Your task to perform on an android device: visit the assistant section in the google photos Image 0: 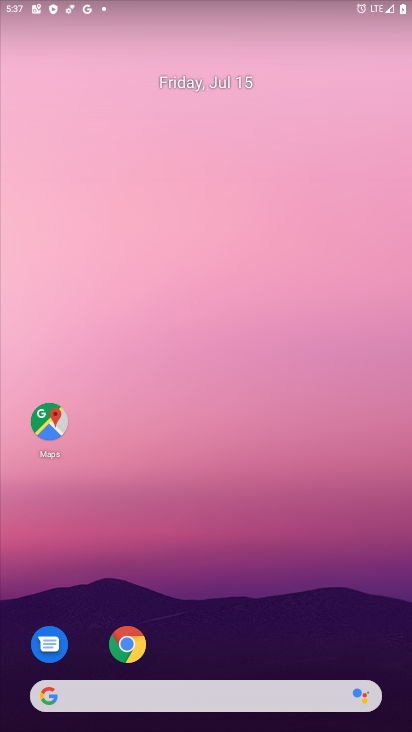
Step 0: drag from (226, 673) to (225, 94)
Your task to perform on an android device: visit the assistant section in the google photos Image 1: 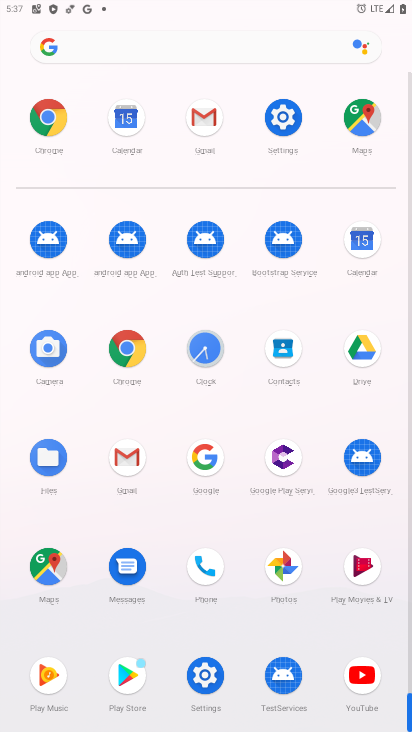
Step 1: click (289, 559)
Your task to perform on an android device: visit the assistant section in the google photos Image 2: 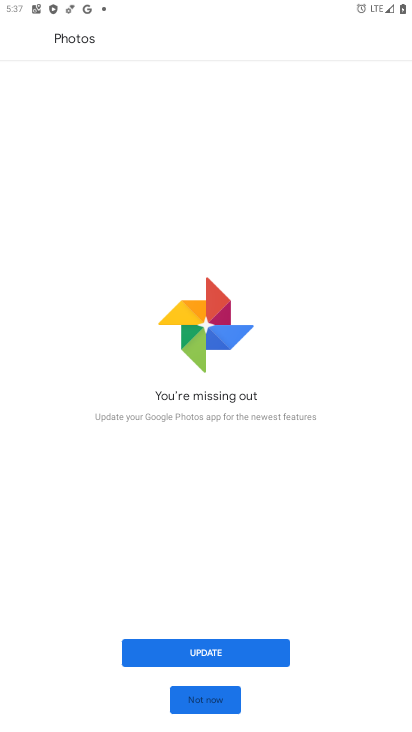
Step 2: click (203, 700)
Your task to perform on an android device: visit the assistant section in the google photos Image 3: 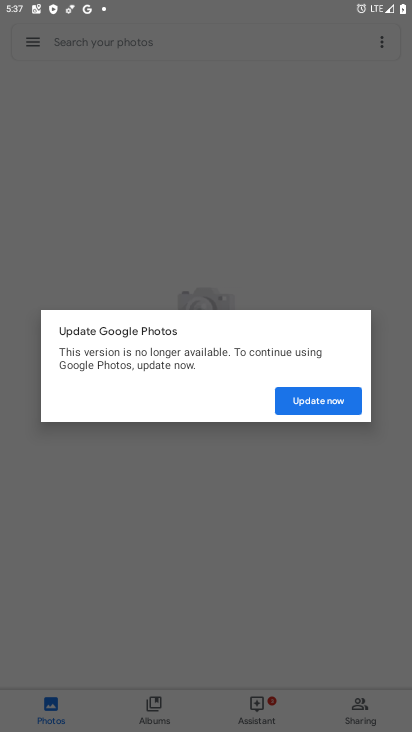
Step 3: click (319, 405)
Your task to perform on an android device: visit the assistant section in the google photos Image 4: 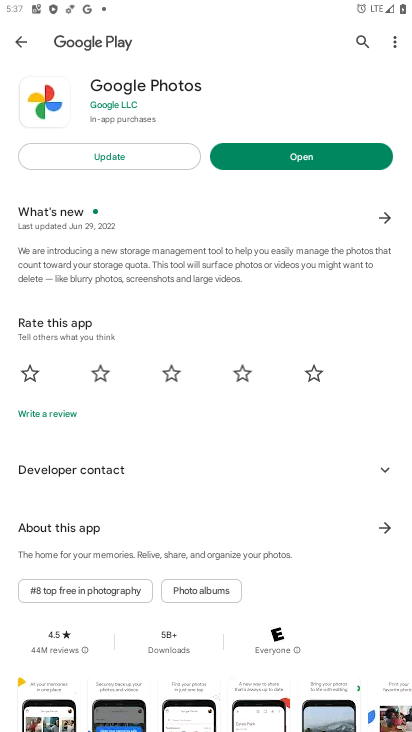
Step 4: click (262, 166)
Your task to perform on an android device: visit the assistant section in the google photos Image 5: 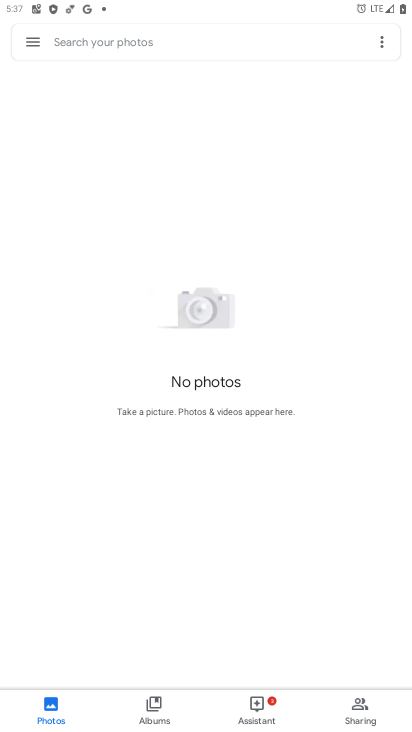
Step 5: click (247, 718)
Your task to perform on an android device: visit the assistant section in the google photos Image 6: 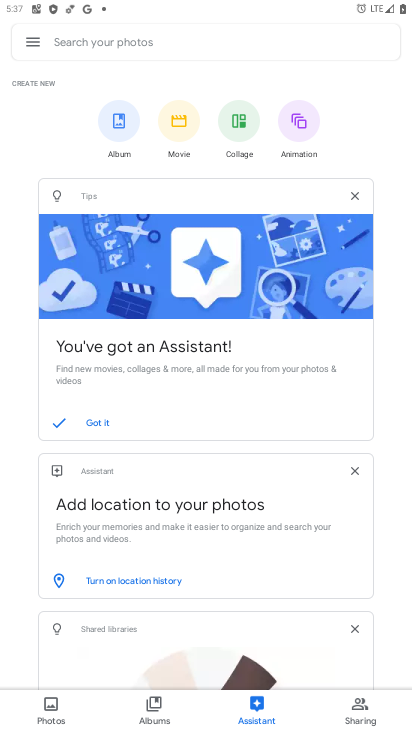
Step 6: task complete